Your task to perform on an android device: Go to Android settings Image 0: 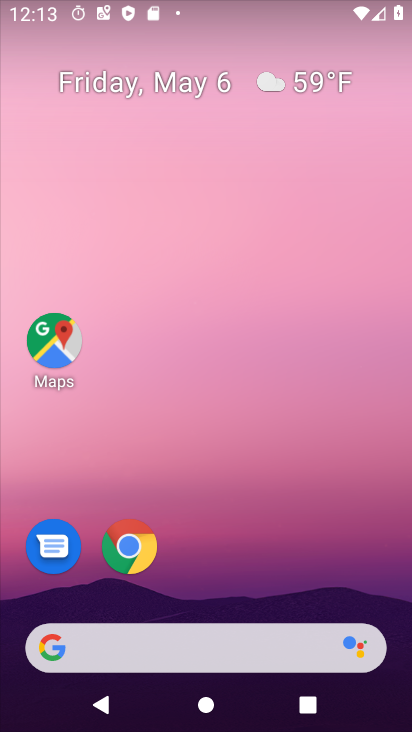
Step 0: drag from (239, 561) to (258, 135)
Your task to perform on an android device: Go to Android settings Image 1: 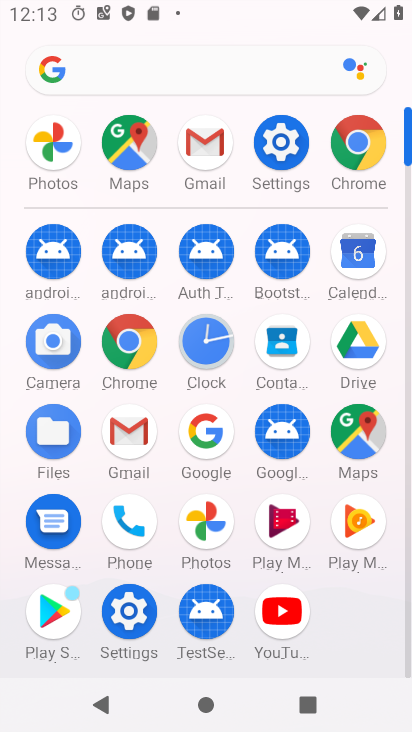
Step 1: click (287, 158)
Your task to perform on an android device: Go to Android settings Image 2: 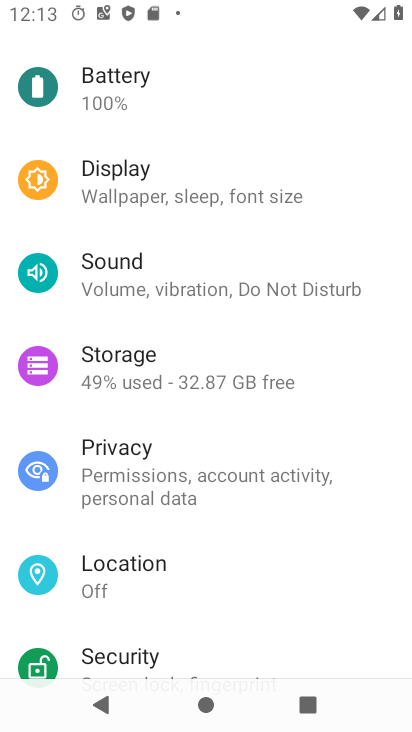
Step 2: drag from (255, 583) to (267, 206)
Your task to perform on an android device: Go to Android settings Image 3: 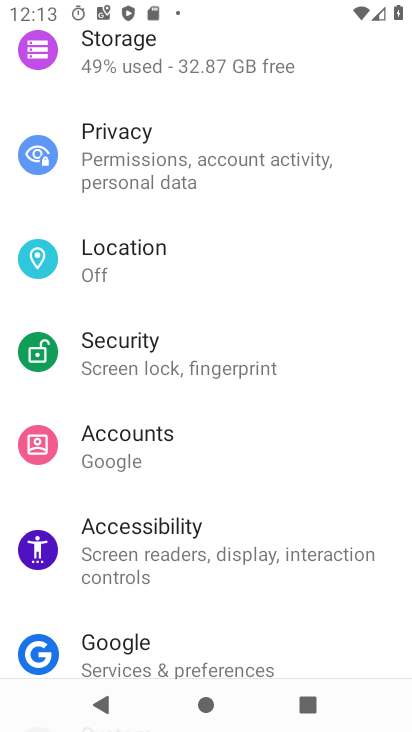
Step 3: drag from (263, 575) to (276, 260)
Your task to perform on an android device: Go to Android settings Image 4: 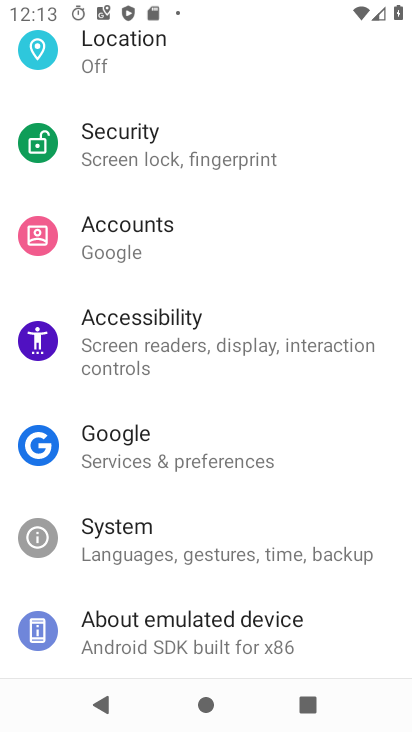
Step 4: drag from (235, 556) to (265, 363)
Your task to perform on an android device: Go to Android settings Image 5: 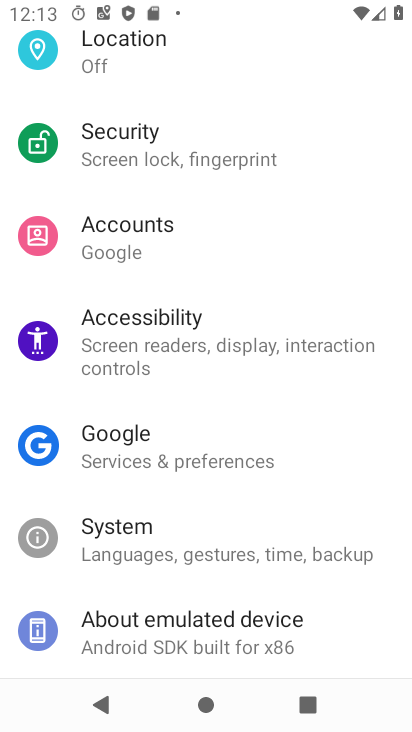
Step 5: click (265, 624)
Your task to perform on an android device: Go to Android settings Image 6: 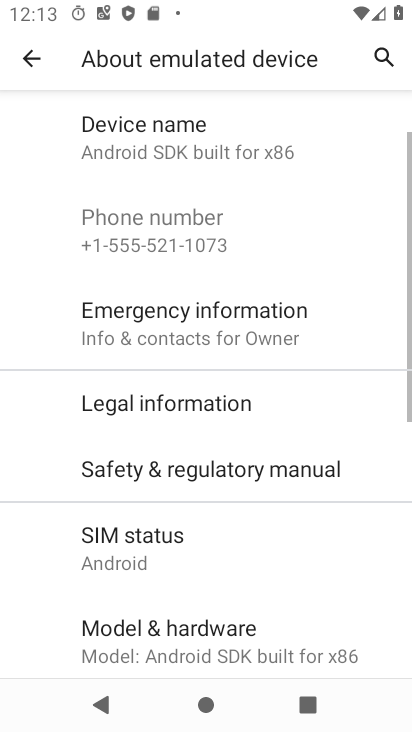
Step 6: drag from (208, 577) to (241, 301)
Your task to perform on an android device: Go to Android settings Image 7: 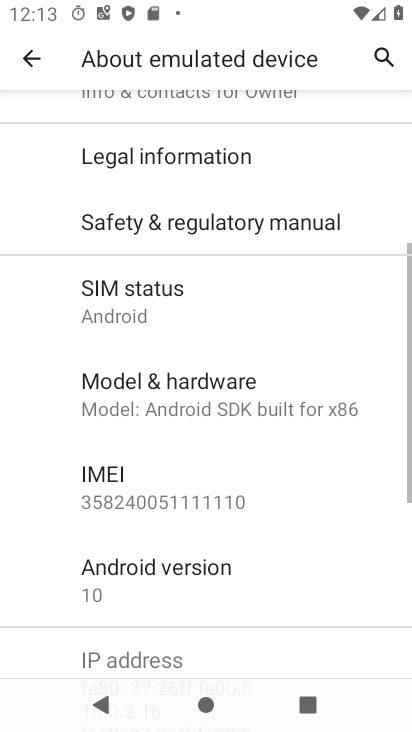
Step 7: click (198, 571)
Your task to perform on an android device: Go to Android settings Image 8: 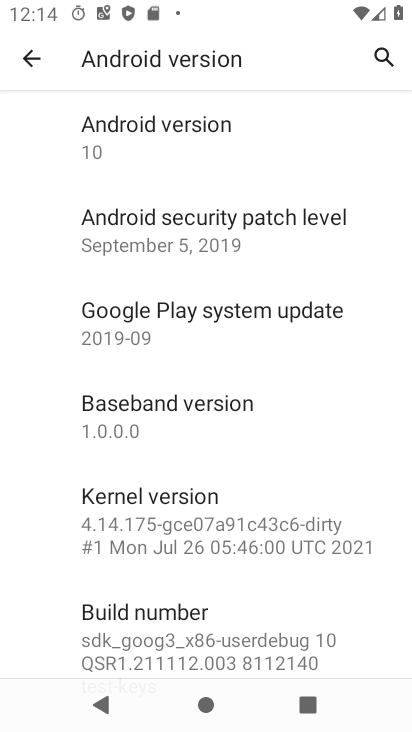
Step 8: task complete